Your task to perform on an android device: When is my next meeting? Image 0: 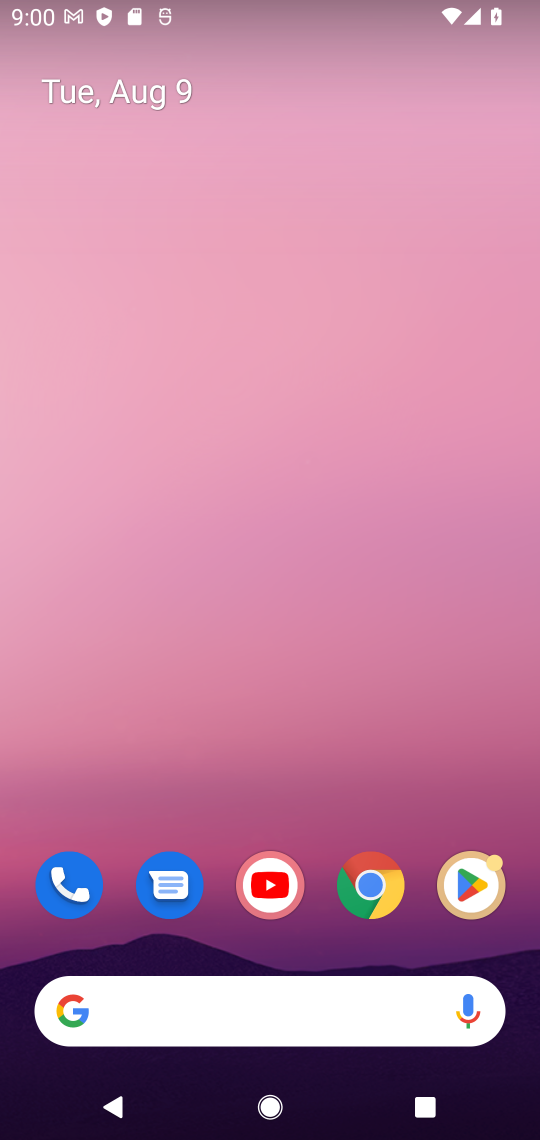
Step 0: drag from (228, 828) to (253, 152)
Your task to perform on an android device: When is my next meeting? Image 1: 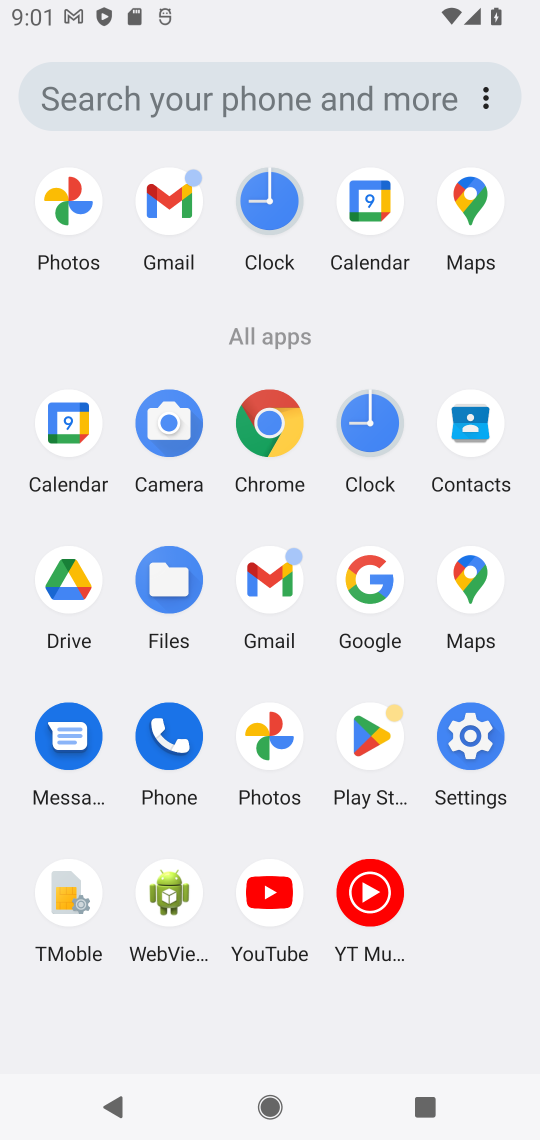
Step 1: click (52, 442)
Your task to perform on an android device: When is my next meeting? Image 2: 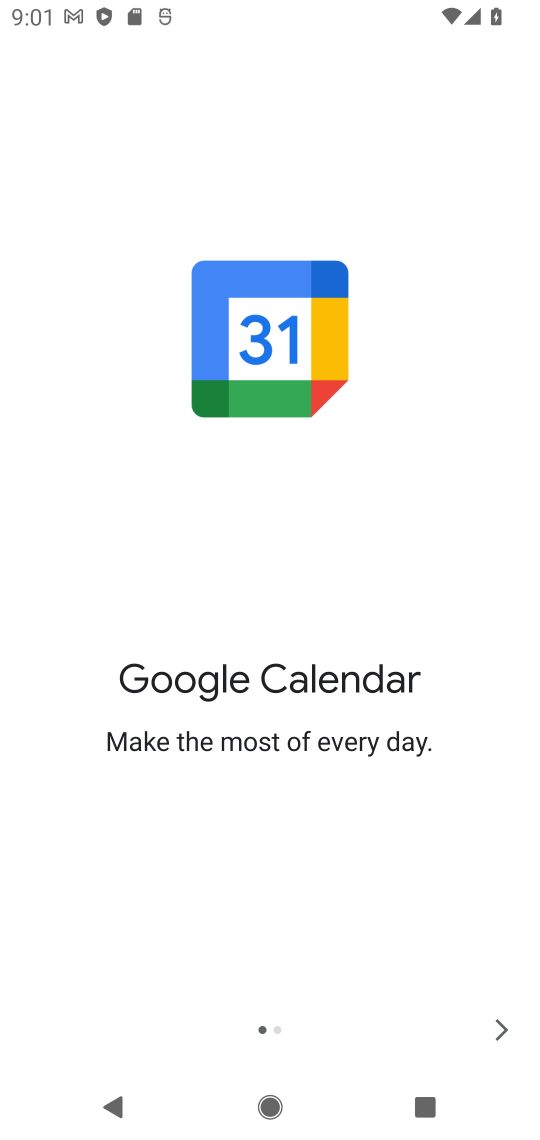
Step 2: click (503, 1033)
Your task to perform on an android device: When is my next meeting? Image 3: 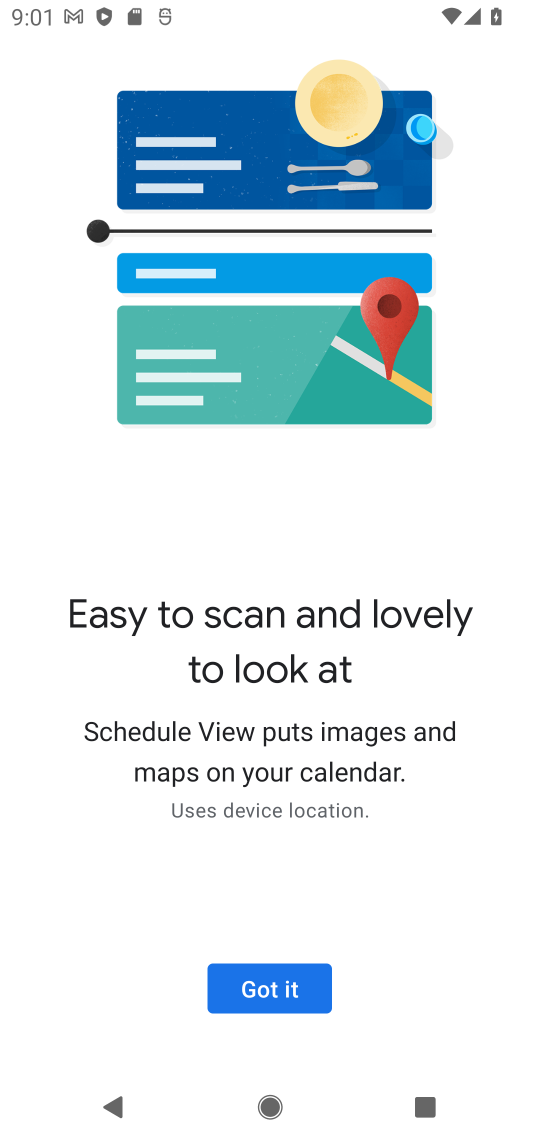
Step 3: click (234, 973)
Your task to perform on an android device: When is my next meeting? Image 4: 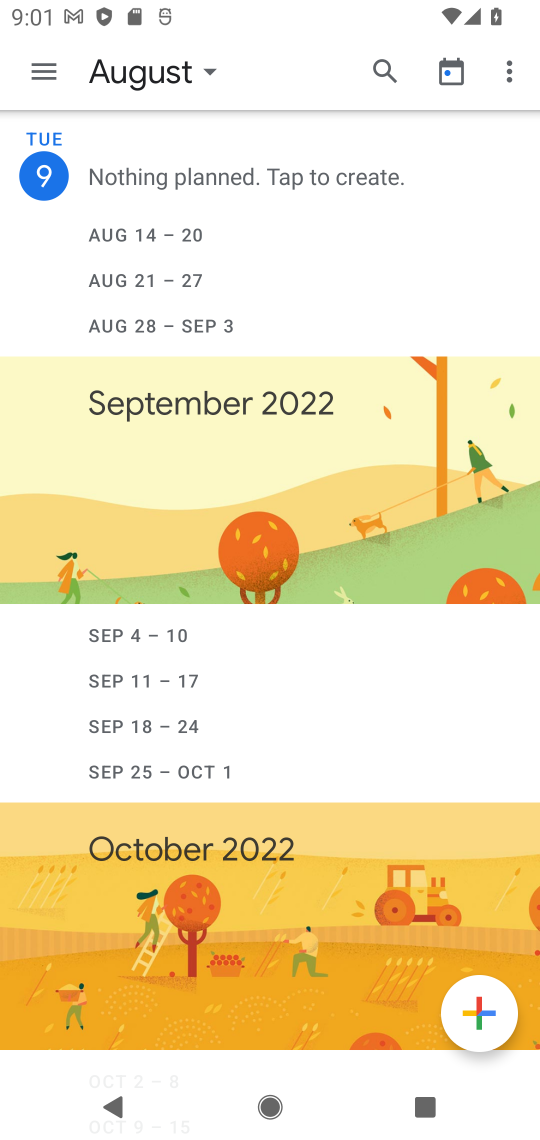
Step 4: task complete